Your task to perform on an android device: Go to sound settings Image 0: 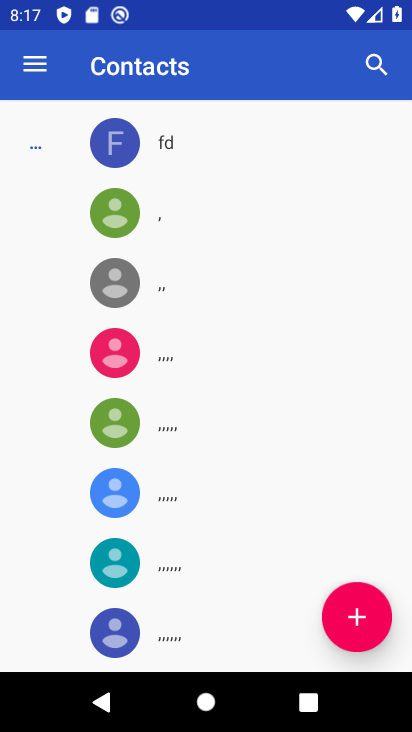
Step 0: press home button
Your task to perform on an android device: Go to sound settings Image 1: 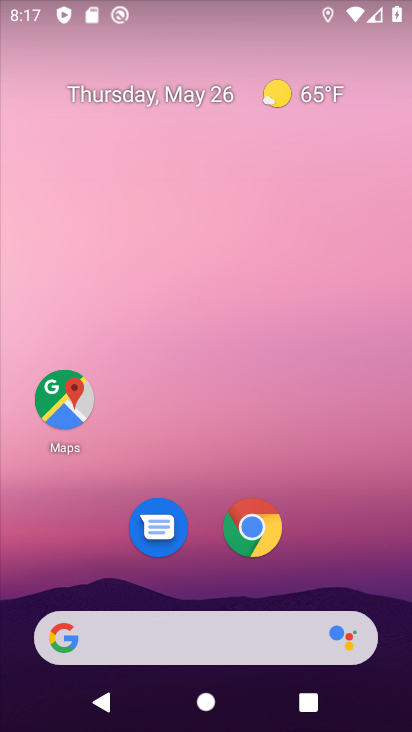
Step 1: drag from (315, 543) to (223, 1)
Your task to perform on an android device: Go to sound settings Image 2: 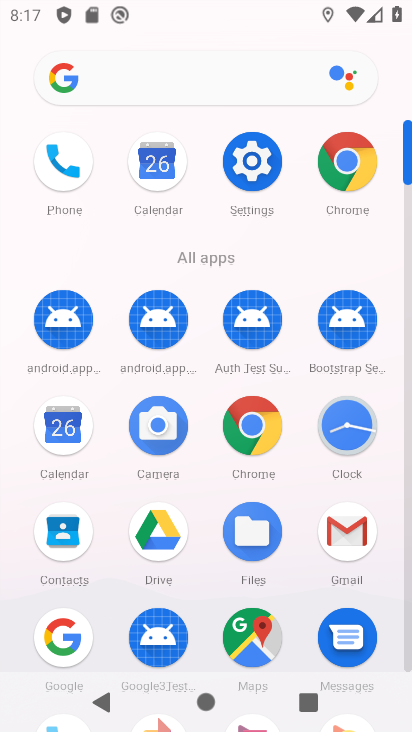
Step 2: click (245, 169)
Your task to perform on an android device: Go to sound settings Image 3: 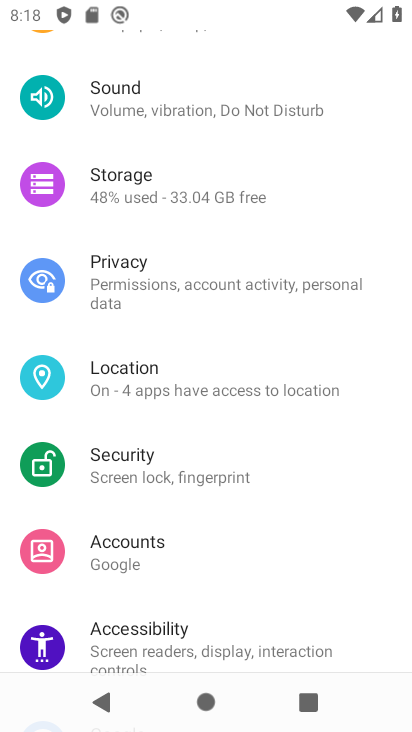
Step 3: click (130, 93)
Your task to perform on an android device: Go to sound settings Image 4: 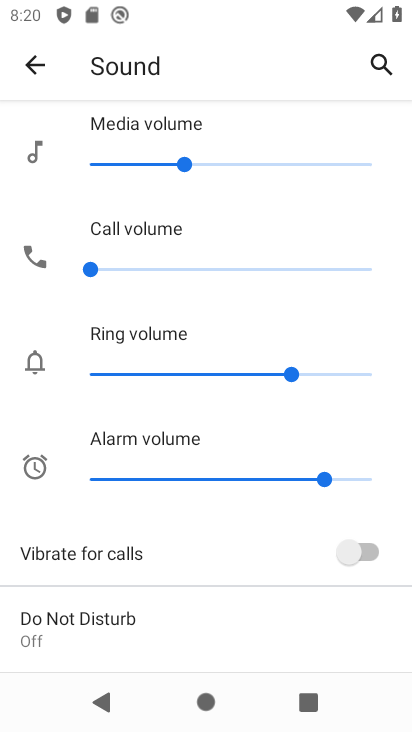
Step 4: task complete